Your task to perform on an android device: Open wifi settings Image 0: 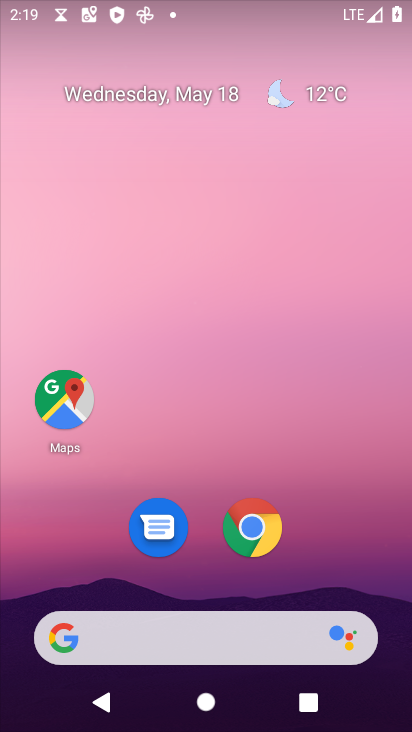
Step 0: drag from (337, 558) to (232, 121)
Your task to perform on an android device: Open wifi settings Image 1: 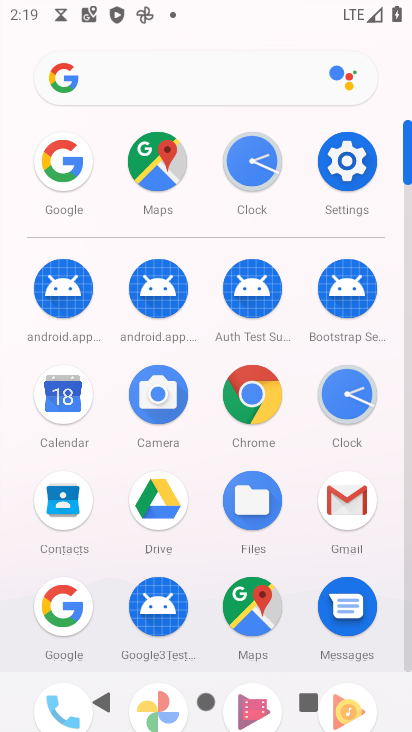
Step 1: click (344, 153)
Your task to perform on an android device: Open wifi settings Image 2: 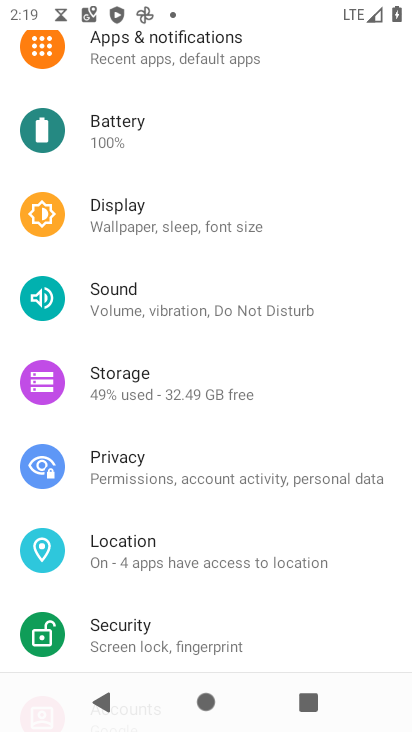
Step 2: drag from (235, 413) to (253, 715)
Your task to perform on an android device: Open wifi settings Image 3: 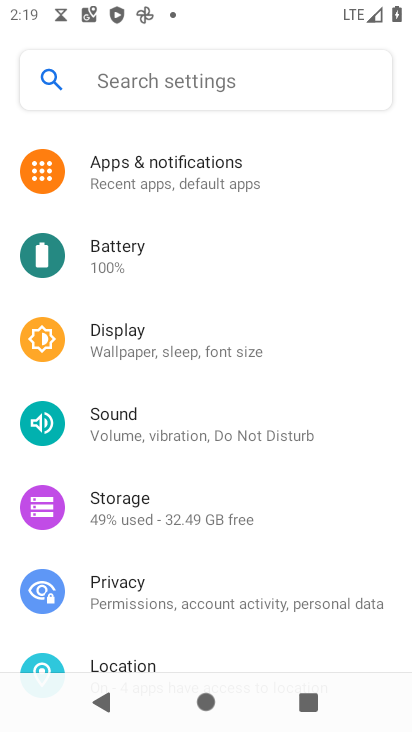
Step 3: drag from (208, 199) to (251, 586)
Your task to perform on an android device: Open wifi settings Image 4: 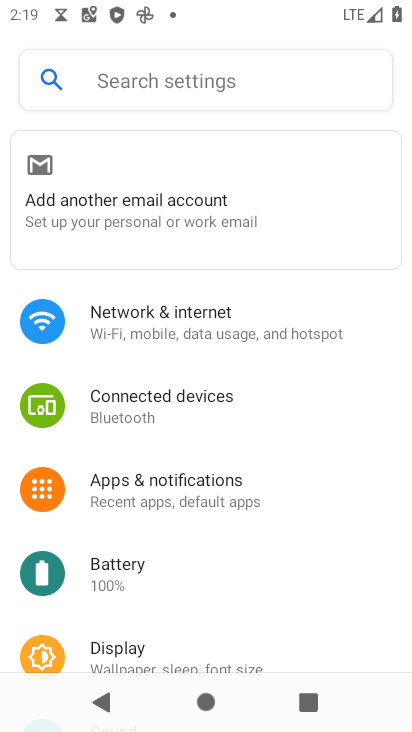
Step 4: click (199, 324)
Your task to perform on an android device: Open wifi settings Image 5: 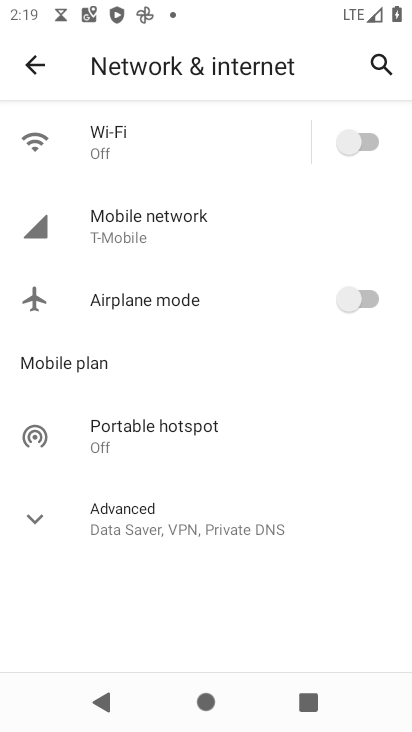
Step 5: click (222, 147)
Your task to perform on an android device: Open wifi settings Image 6: 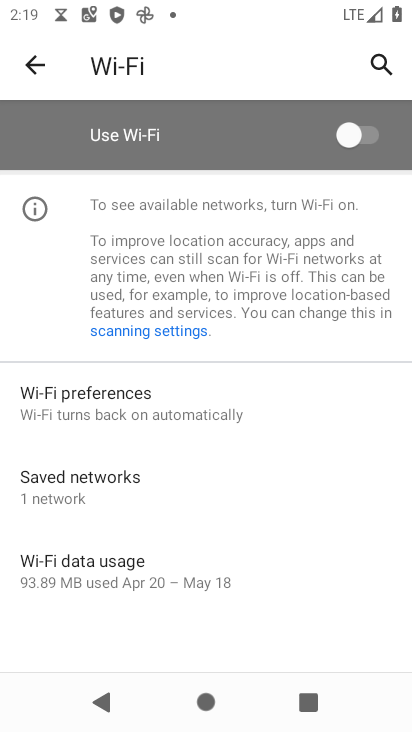
Step 6: task complete